Your task to perform on an android device: Go to Yahoo.com Image 0: 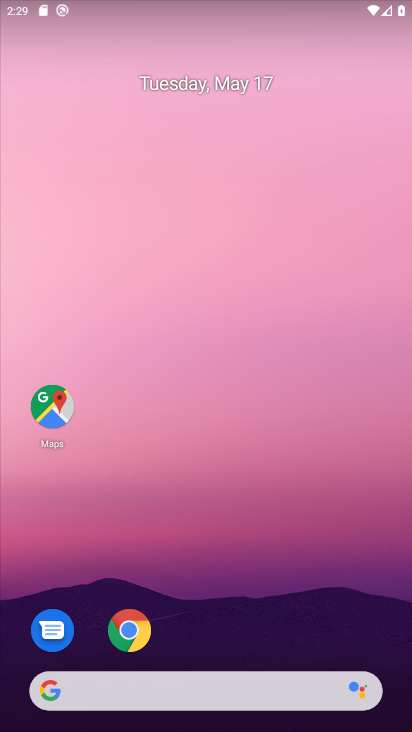
Step 0: drag from (247, 647) to (209, 115)
Your task to perform on an android device: Go to Yahoo.com Image 1: 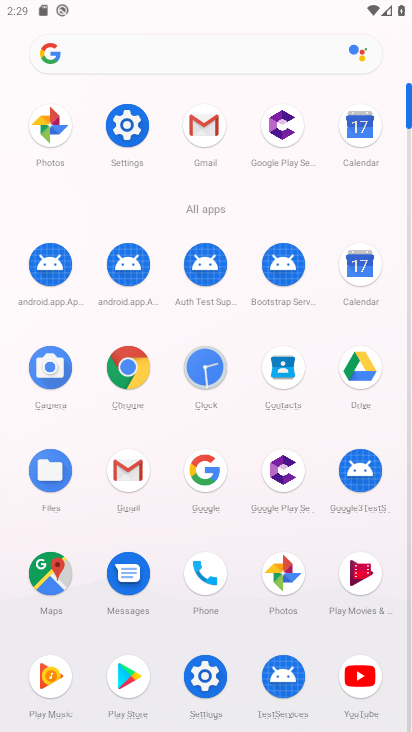
Step 1: click (127, 373)
Your task to perform on an android device: Go to Yahoo.com Image 2: 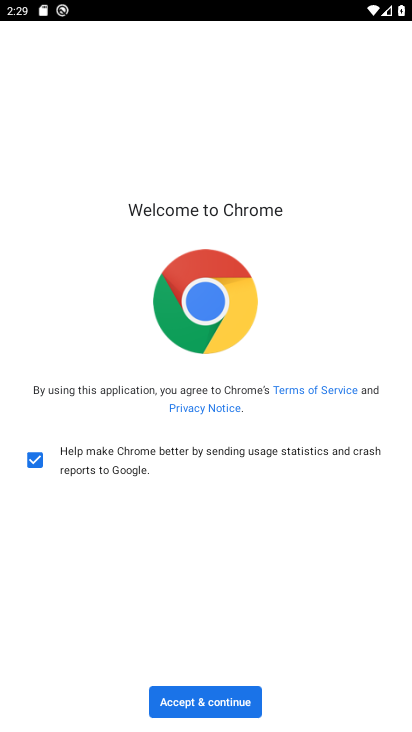
Step 2: click (231, 704)
Your task to perform on an android device: Go to Yahoo.com Image 3: 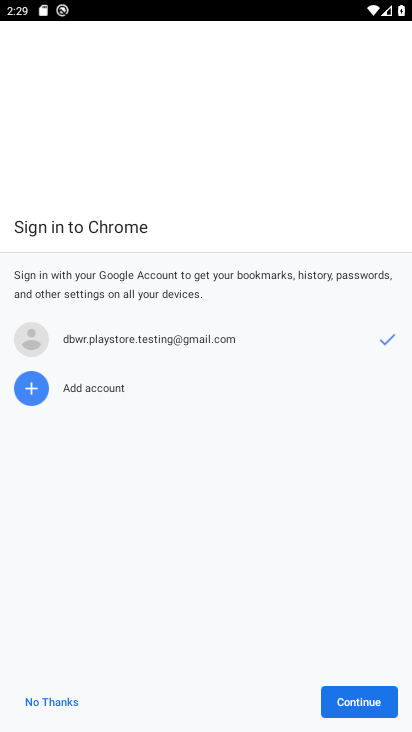
Step 3: click (339, 704)
Your task to perform on an android device: Go to Yahoo.com Image 4: 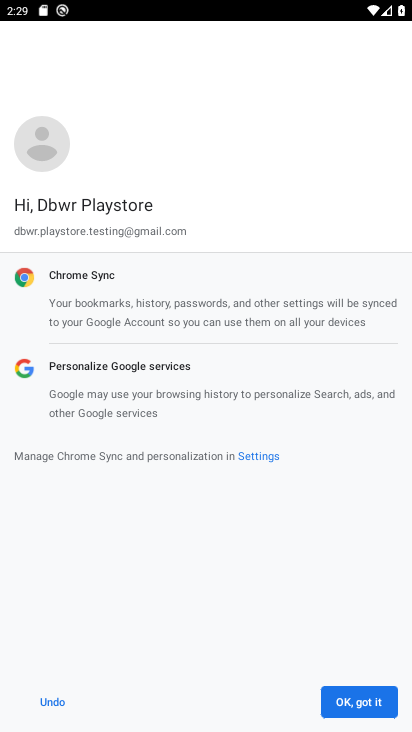
Step 4: click (336, 701)
Your task to perform on an android device: Go to Yahoo.com Image 5: 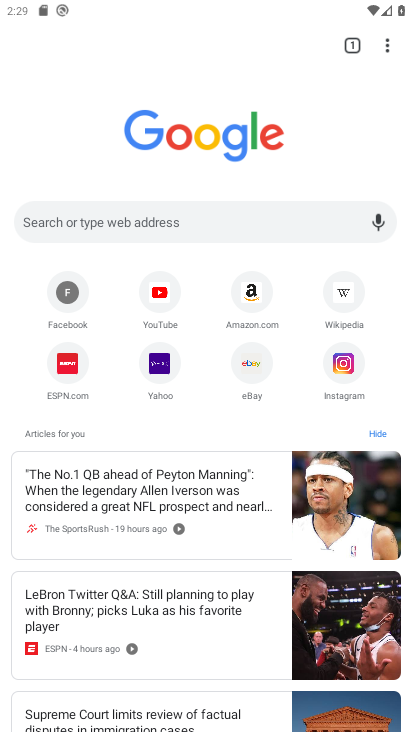
Step 5: click (162, 374)
Your task to perform on an android device: Go to Yahoo.com Image 6: 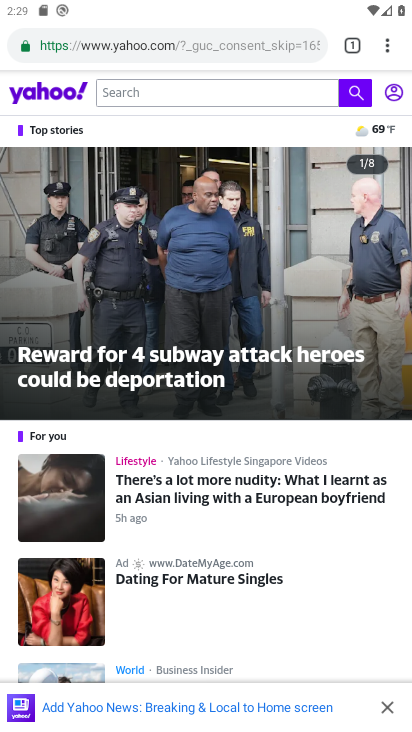
Step 6: task complete